Your task to perform on an android device: manage bookmarks in the chrome app Image 0: 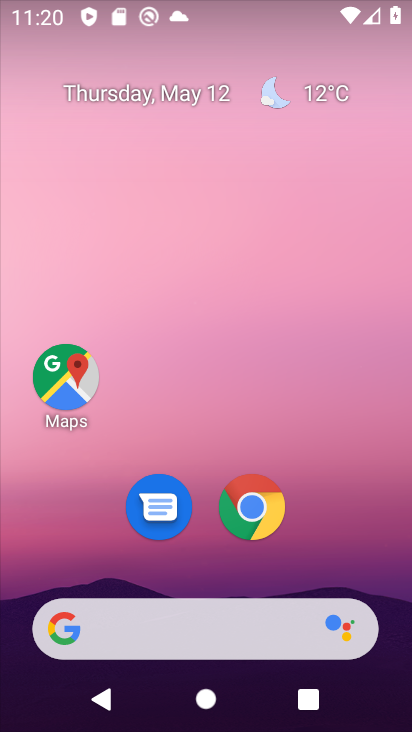
Step 0: drag from (197, 548) to (259, 11)
Your task to perform on an android device: manage bookmarks in the chrome app Image 1: 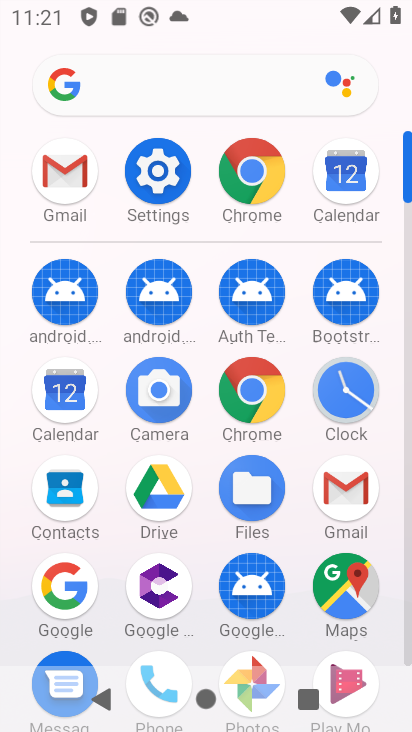
Step 1: click (252, 193)
Your task to perform on an android device: manage bookmarks in the chrome app Image 2: 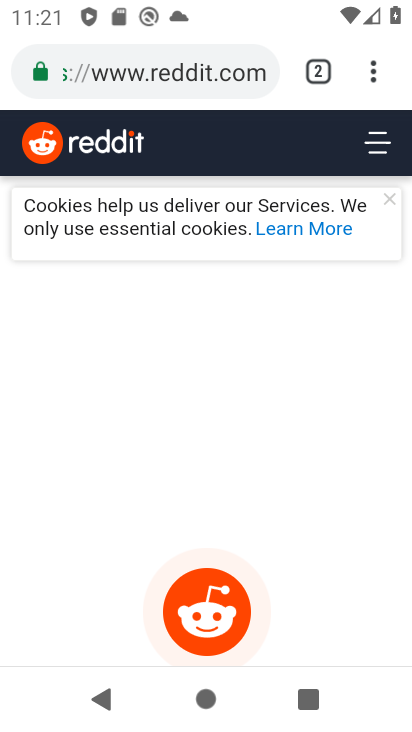
Step 2: click (380, 84)
Your task to perform on an android device: manage bookmarks in the chrome app Image 3: 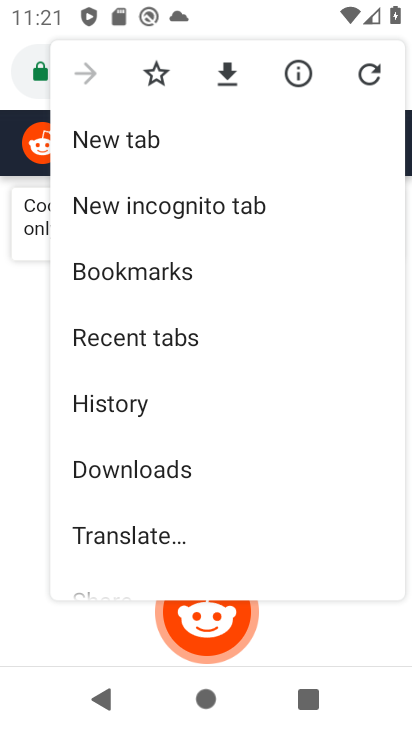
Step 3: click (144, 283)
Your task to perform on an android device: manage bookmarks in the chrome app Image 4: 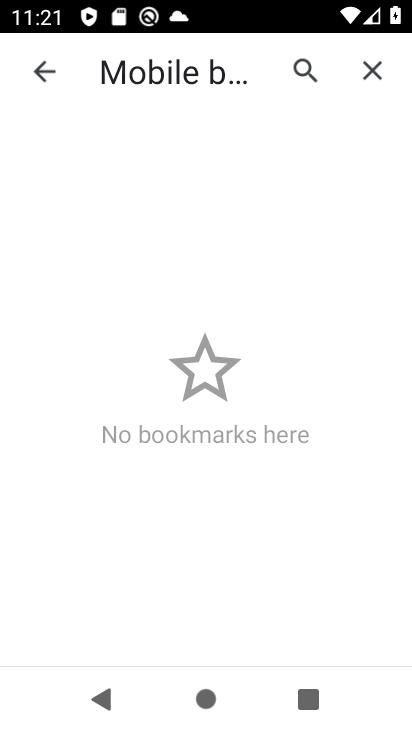
Step 4: task complete